Your task to perform on an android device: Open eBay Image 0: 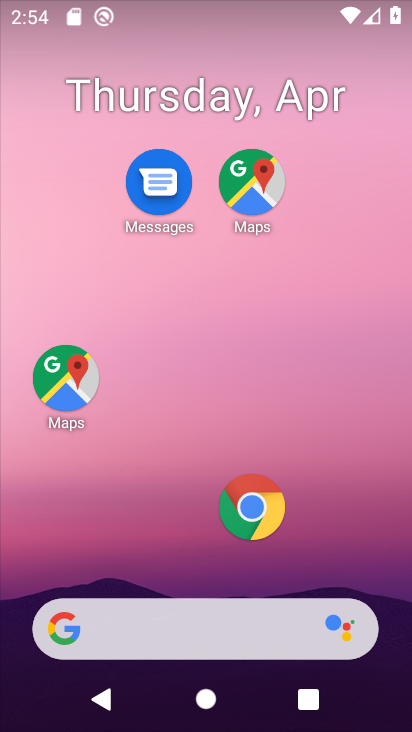
Step 0: click (266, 497)
Your task to perform on an android device: Open eBay Image 1: 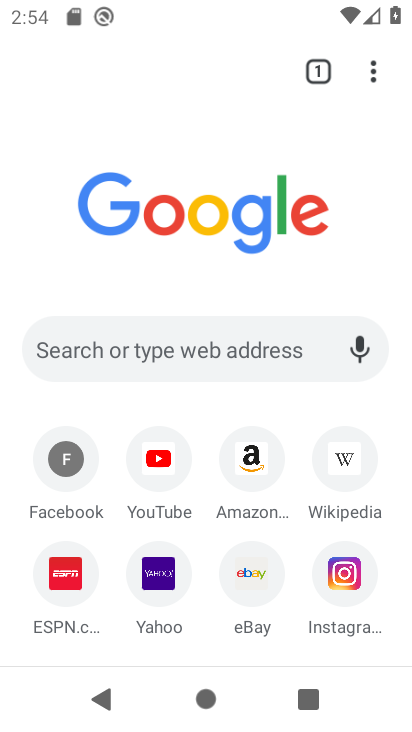
Step 1: click (259, 364)
Your task to perform on an android device: Open eBay Image 2: 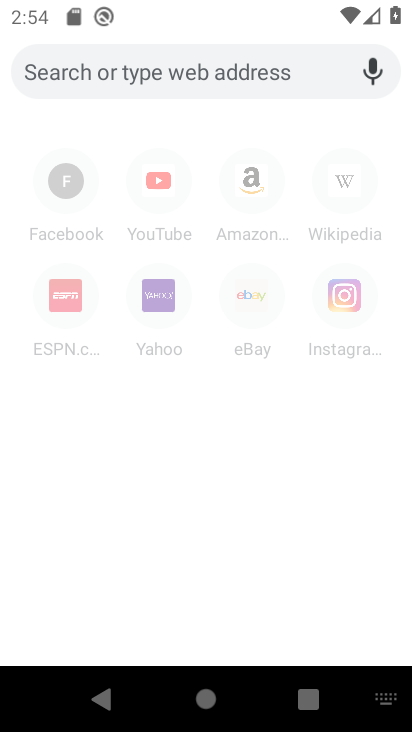
Step 2: type "eBay"
Your task to perform on an android device: Open eBay Image 3: 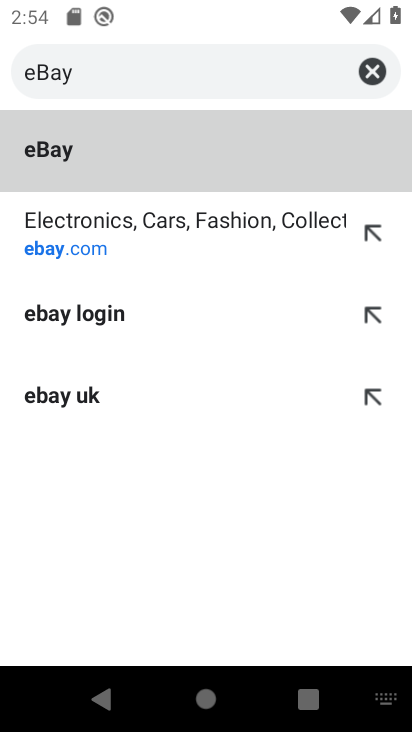
Step 3: click (103, 139)
Your task to perform on an android device: Open eBay Image 4: 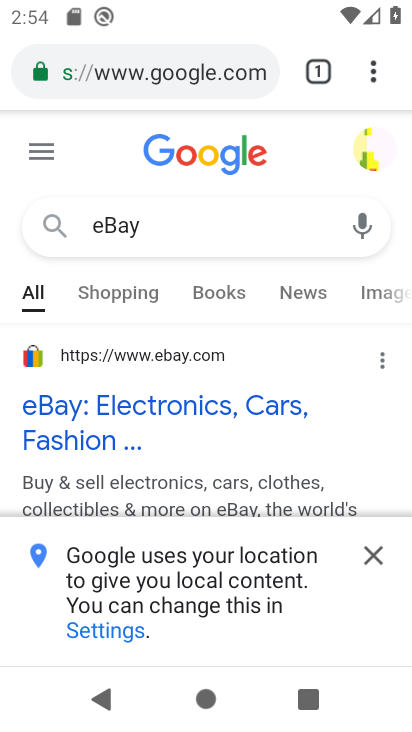
Step 4: task complete